Your task to perform on an android device: add a label to a message in the gmail app Image 0: 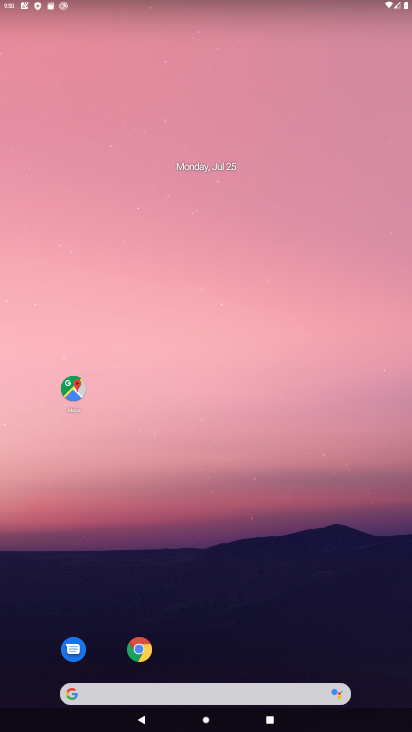
Step 0: drag from (191, 583) to (18, 698)
Your task to perform on an android device: add a label to a message in the gmail app Image 1: 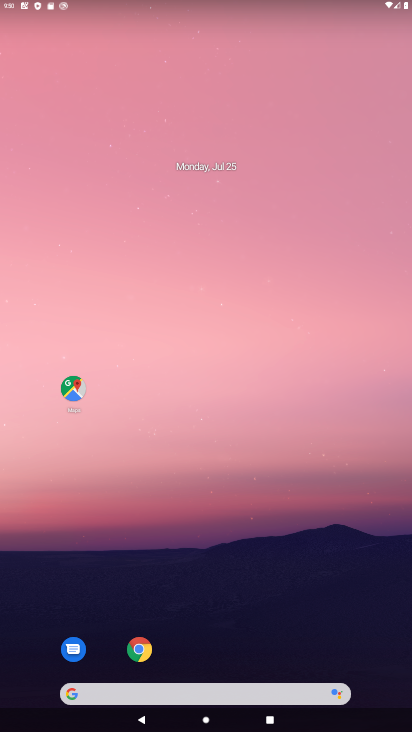
Step 1: drag from (269, 630) to (185, 152)
Your task to perform on an android device: add a label to a message in the gmail app Image 2: 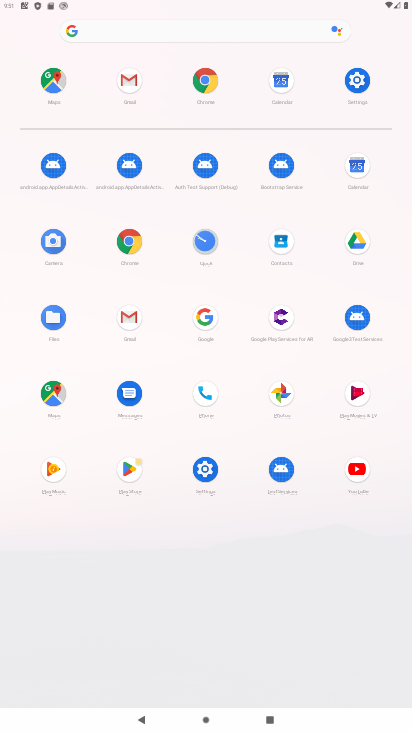
Step 2: click (131, 78)
Your task to perform on an android device: add a label to a message in the gmail app Image 3: 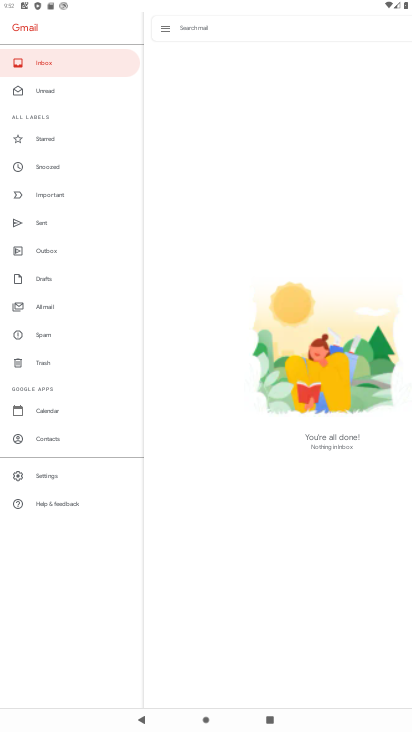
Step 3: task complete